Your task to perform on an android device: Open the calendar and show me this week's events? Image 0: 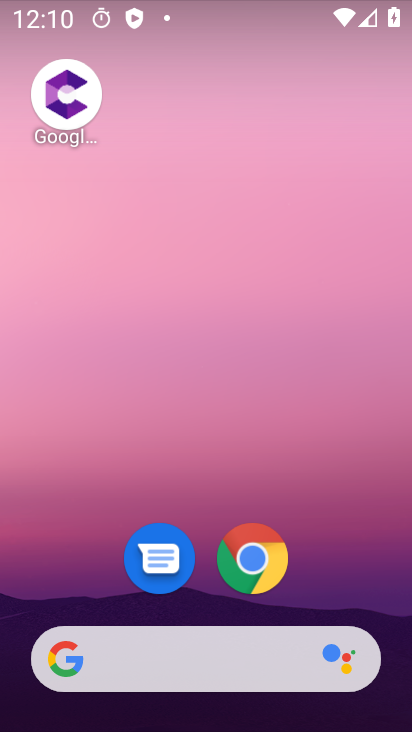
Step 0: drag from (372, 586) to (376, 171)
Your task to perform on an android device: Open the calendar and show me this week's events? Image 1: 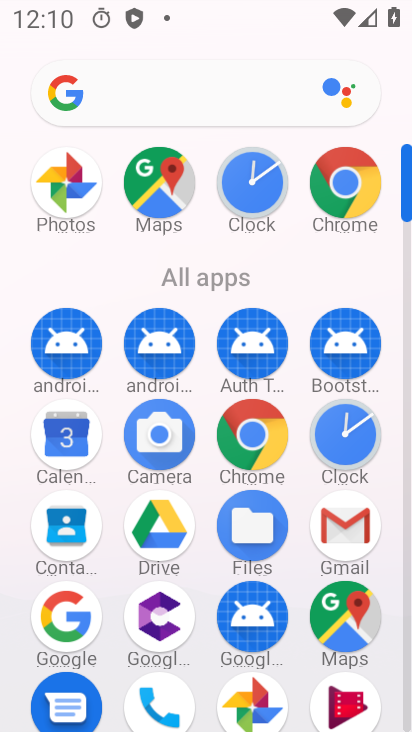
Step 1: click (78, 454)
Your task to perform on an android device: Open the calendar and show me this week's events? Image 2: 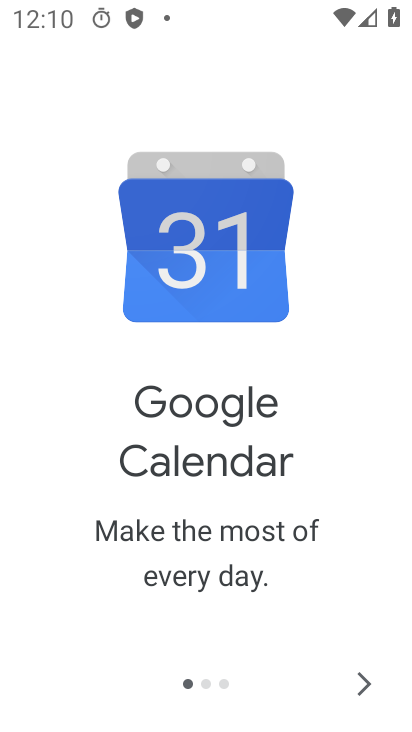
Step 2: click (357, 680)
Your task to perform on an android device: Open the calendar and show me this week's events? Image 3: 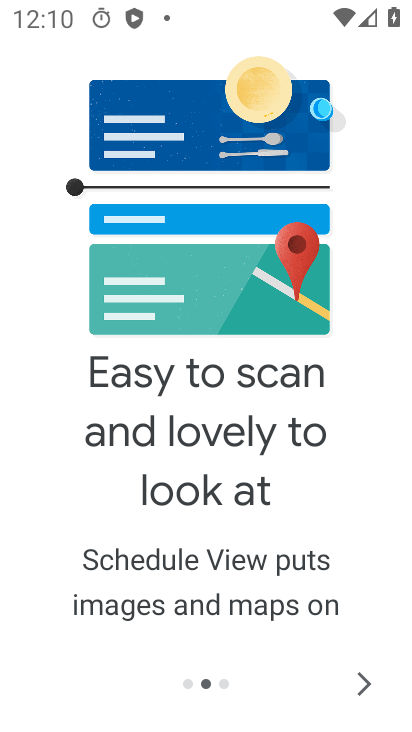
Step 3: click (357, 680)
Your task to perform on an android device: Open the calendar and show me this week's events? Image 4: 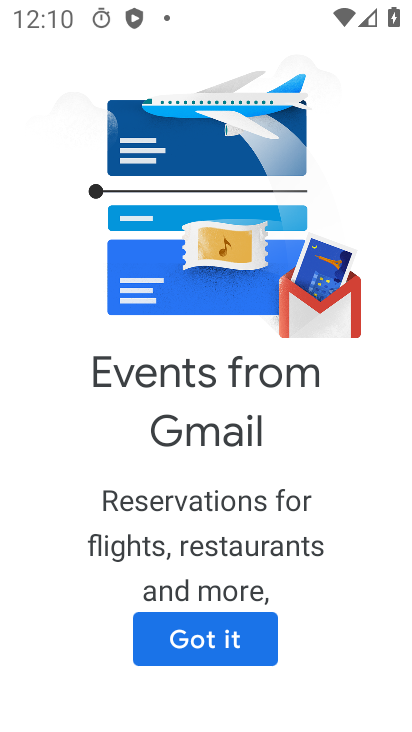
Step 4: click (254, 641)
Your task to perform on an android device: Open the calendar and show me this week's events? Image 5: 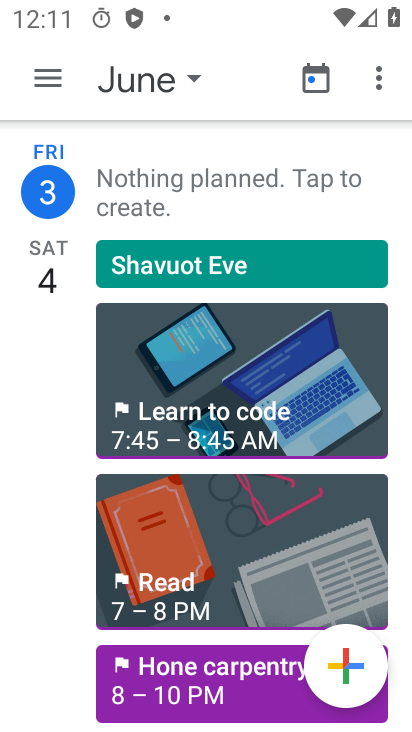
Step 5: task complete